Your task to perform on an android device: delete location history Image 0: 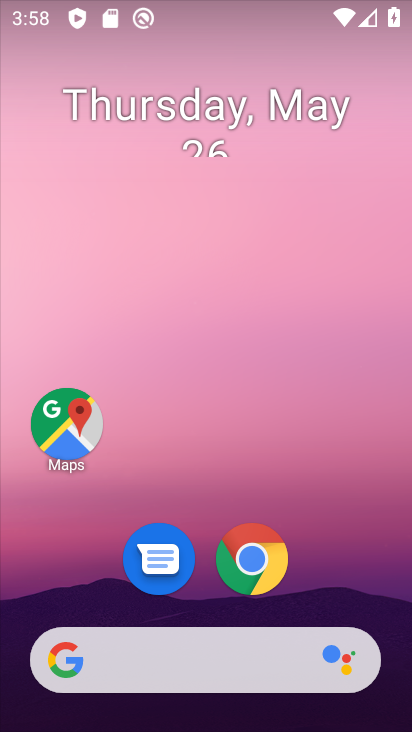
Step 0: drag from (336, 533) to (196, 9)
Your task to perform on an android device: delete location history Image 1: 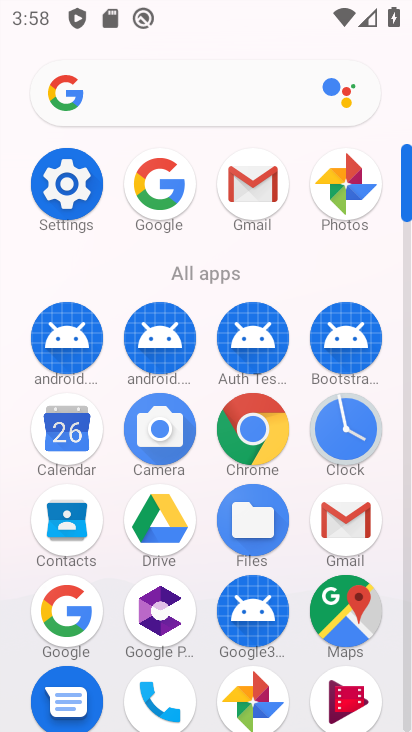
Step 1: click (71, 194)
Your task to perform on an android device: delete location history Image 2: 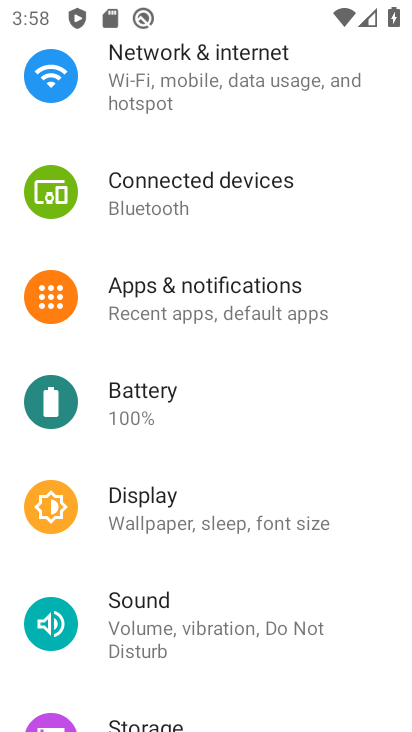
Step 2: drag from (259, 618) to (242, 41)
Your task to perform on an android device: delete location history Image 3: 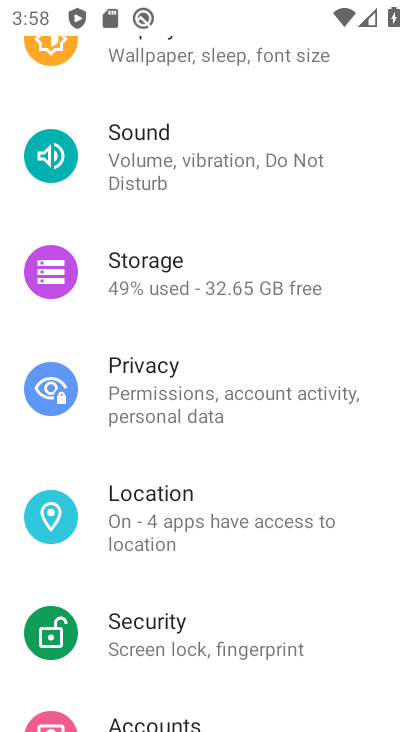
Step 3: click (233, 522)
Your task to perform on an android device: delete location history Image 4: 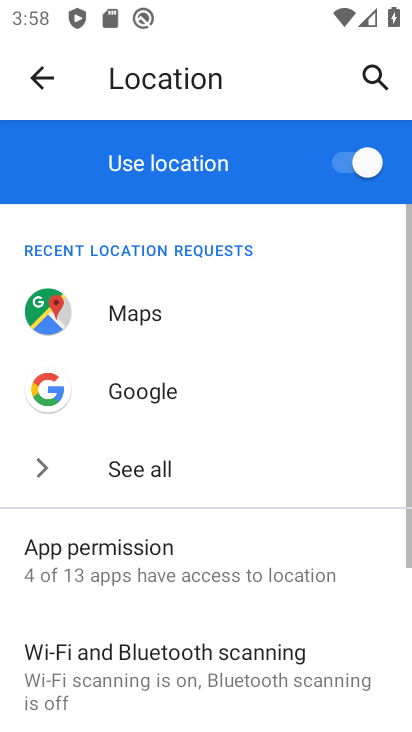
Step 4: drag from (254, 593) to (237, 93)
Your task to perform on an android device: delete location history Image 5: 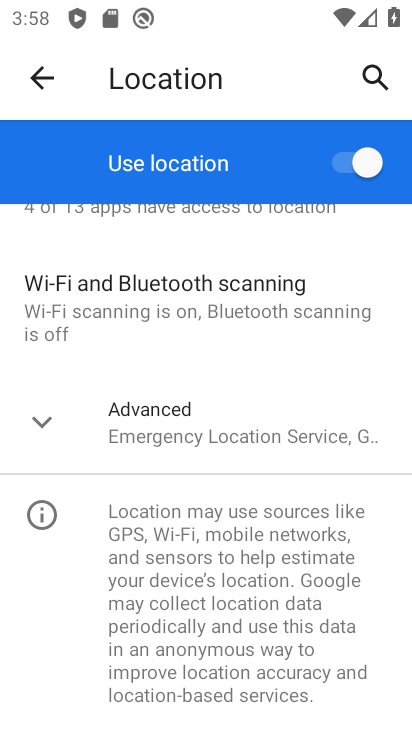
Step 5: click (227, 436)
Your task to perform on an android device: delete location history Image 6: 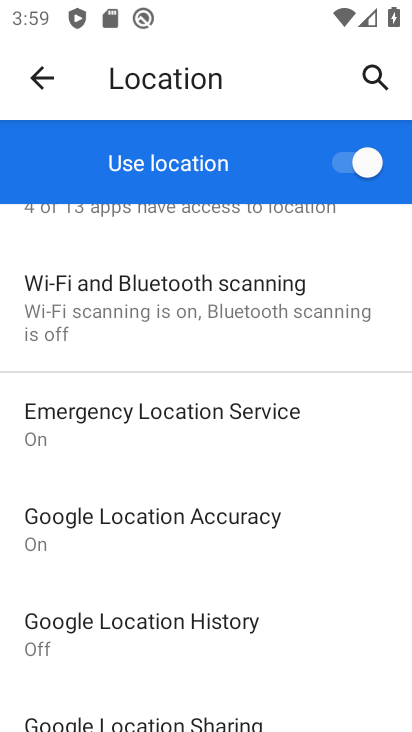
Step 6: click (201, 632)
Your task to perform on an android device: delete location history Image 7: 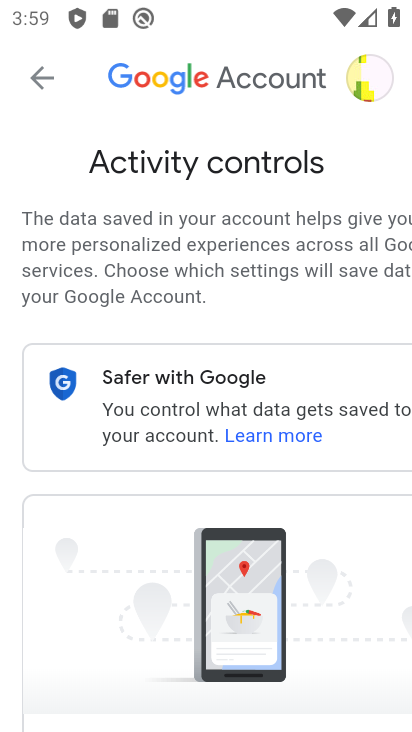
Step 7: drag from (209, 550) to (239, 116)
Your task to perform on an android device: delete location history Image 8: 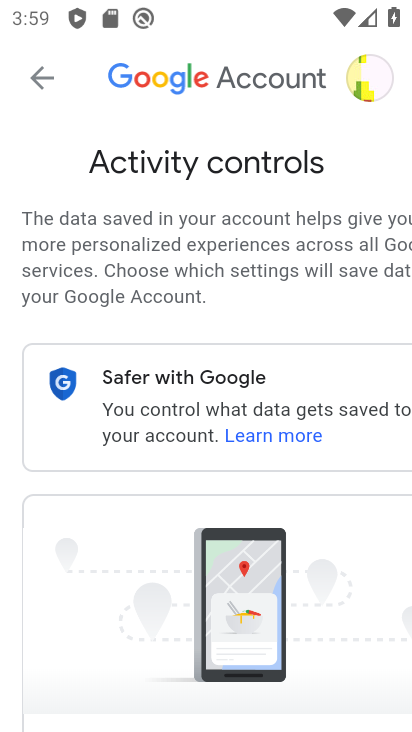
Step 8: drag from (177, 629) to (239, 86)
Your task to perform on an android device: delete location history Image 9: 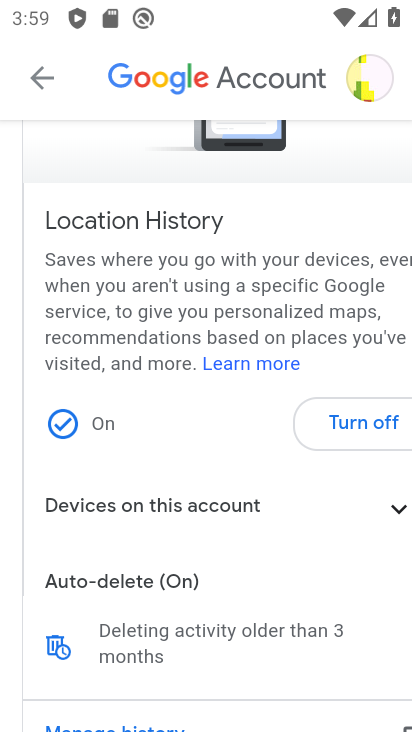
Step 9: click (58, 643)
Your task to perform on an android device: delete location history Image 10: 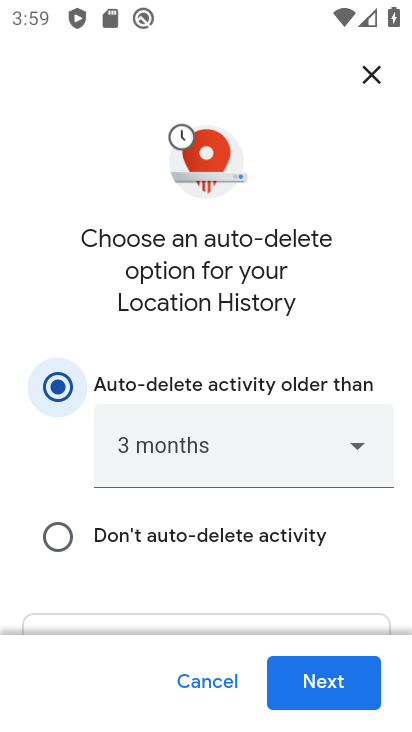
Step 10: click (58, 547)
Your task to perform on an android device: delete location history Image 11: 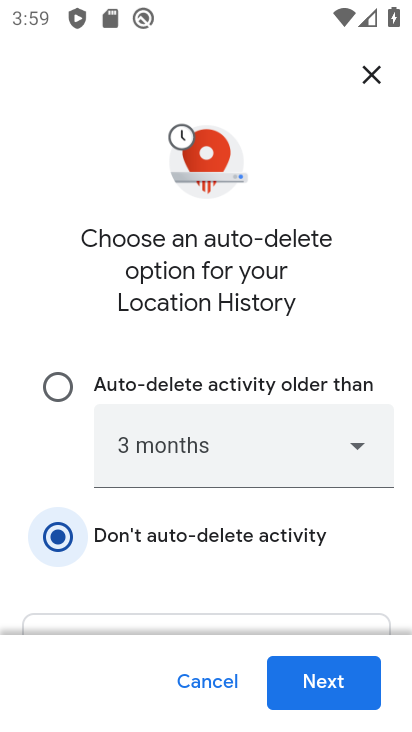
Step 11: click (342, 676)
Your task to perform on an android device: delete location history Image 12: 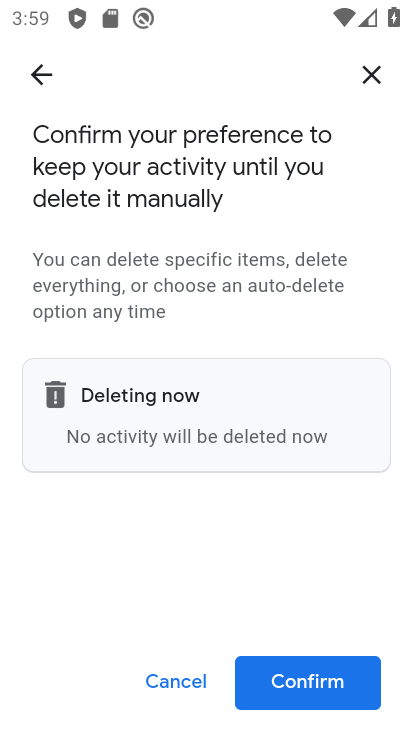
Step 12: click (321, 682)
Your task to perform on an android device: delete location history Image 13: 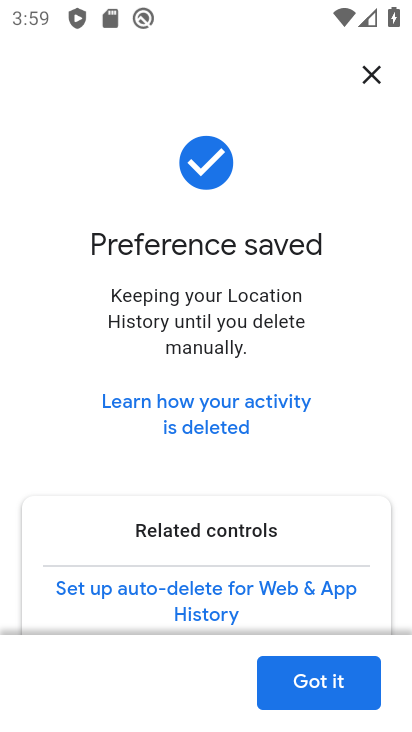
Step 13: click (321, 678)
Your task to perform on an android device: delete location history Image 14: 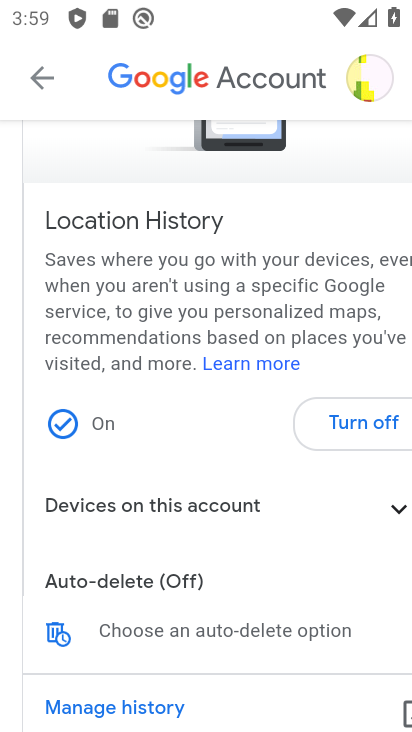
Step 14: task complete